Your task to perform on an android device: Open the web browser Image 0: 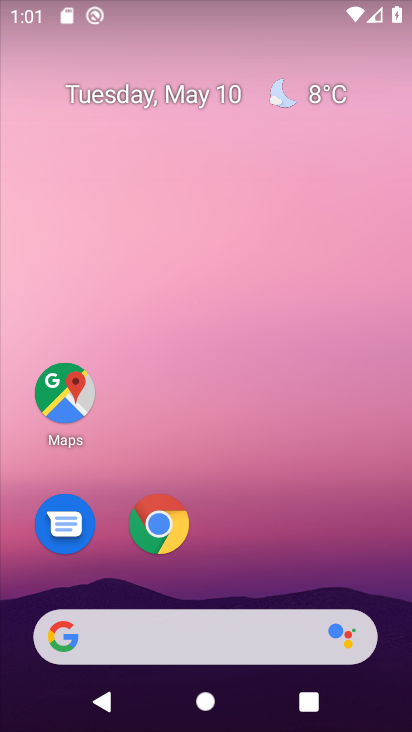
Step 0: click (157, 526)
Your task to perform on an android device: Open the web browser Image 1: 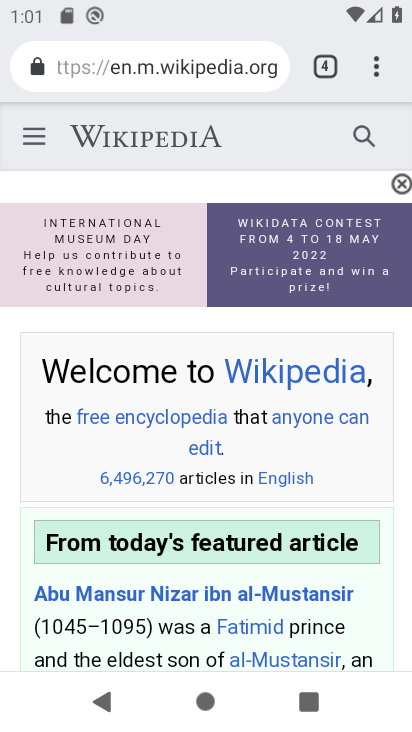
Step 1: click (141, 62)
Your task to perform on an android device: Open the web browser Image 2: 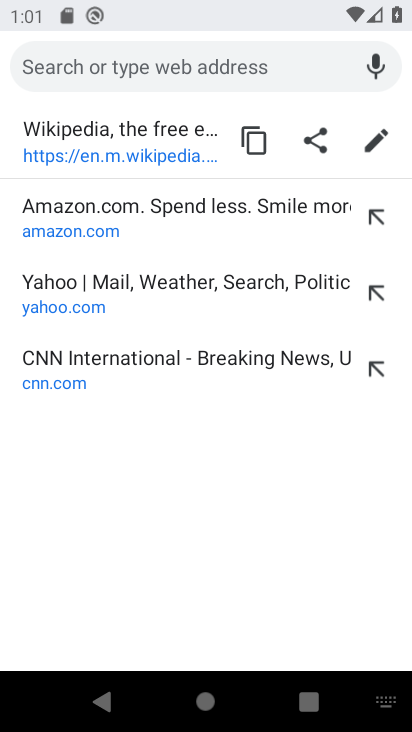
Step 2: task complete